Your task to perform on an android device: find snoozed emails in the gmail app Image 0: 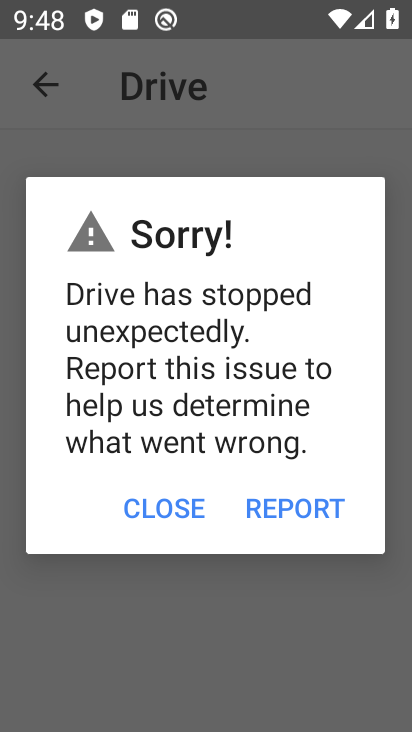
Step 0: press home button
Your task to perform on an android device: find snoozed emails in the gmail app Image 1: 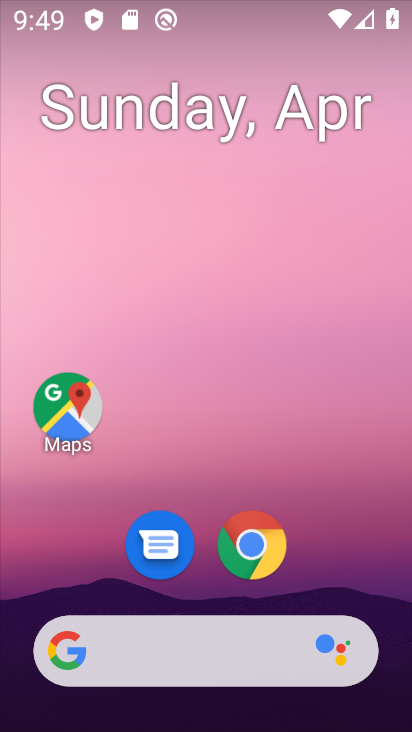
Step 1: drag from (339, 596) to (336, 291)
Your task to perform on an android device: find snoozed emails in the gmail app Image 2: 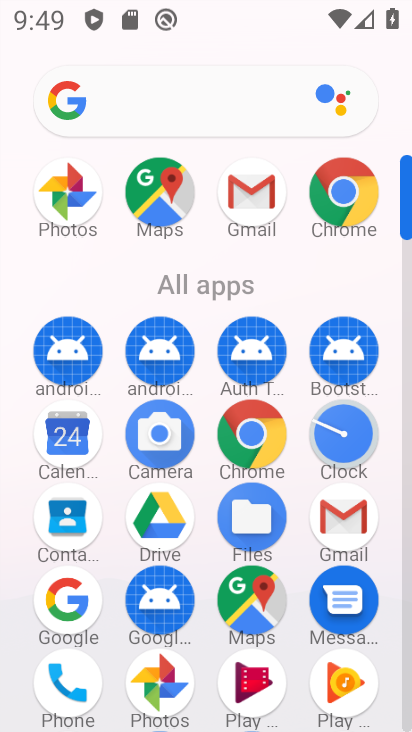
Step 2: click (262, 220)
Your task to perform on an android device: find snoozed emails in the gmail app Image 3: 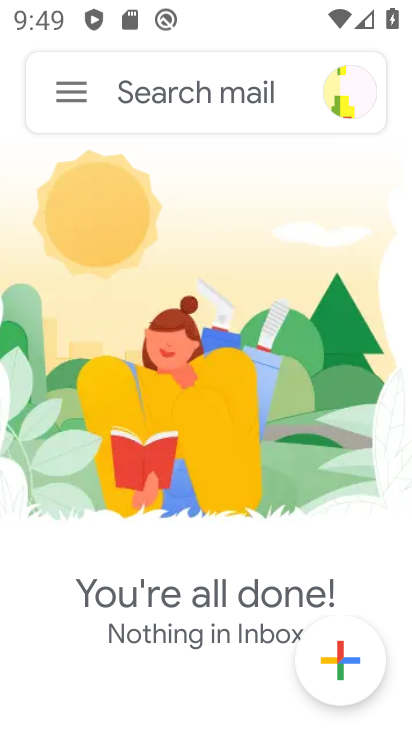
Step 3: click (73, 104)
Your task to perform on an android device: find snoozed emails in the gmail app Image 4: 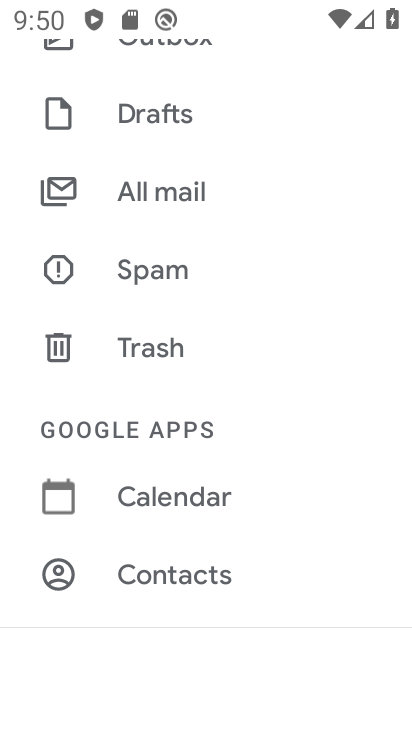
Step 4: drag from (331, 562) to (315, 233)
Your task to perform on an android device: find snoozed emails in the gmail app Image 5: 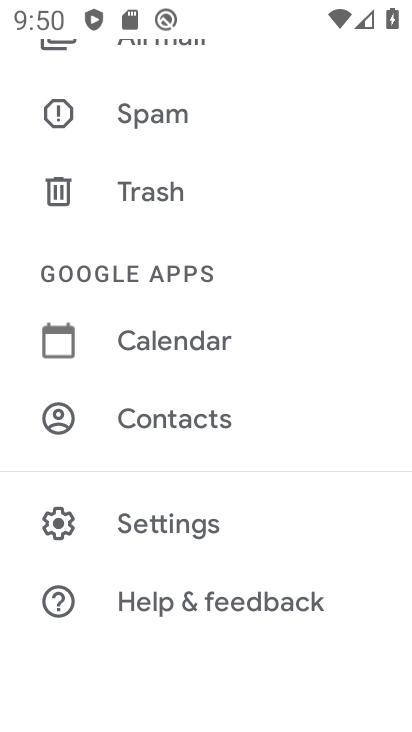
Step 5: drag from (299, 184) to (307, 727)
Your task to perform on an android device: find snoozed emails in the gmail app Image 6: 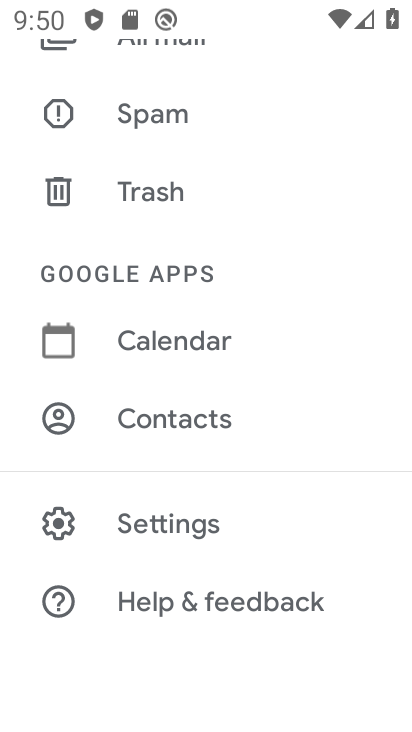
Step 6: drag from (233, 84) to (340, 696)
Your task to perform on an android device: find snoozed emails in the gmail app Image 7: 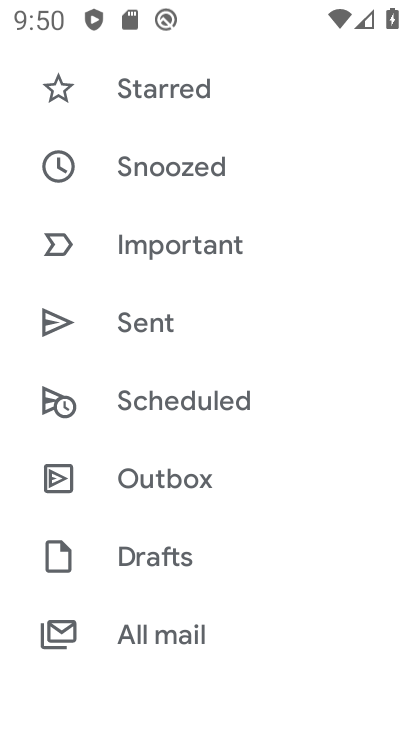
Step 7: click (205, 179)
Your task to perform on an android device: find snoozed emails in the gmail app Image 8: 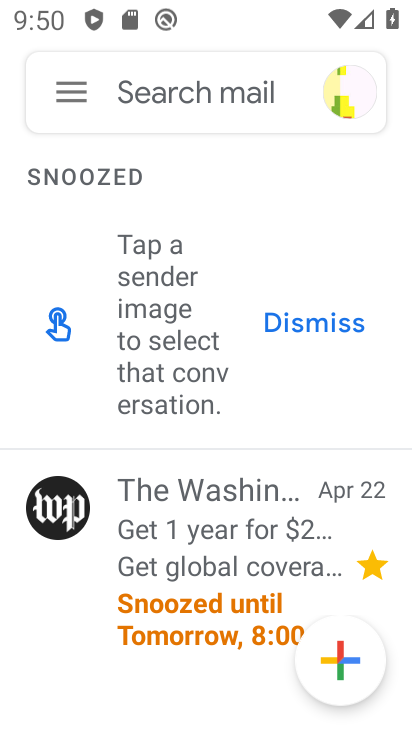
Step 8: click (314, 323)
Your task to perform on an android device: find snoozed emails in the gmail app Image 9: 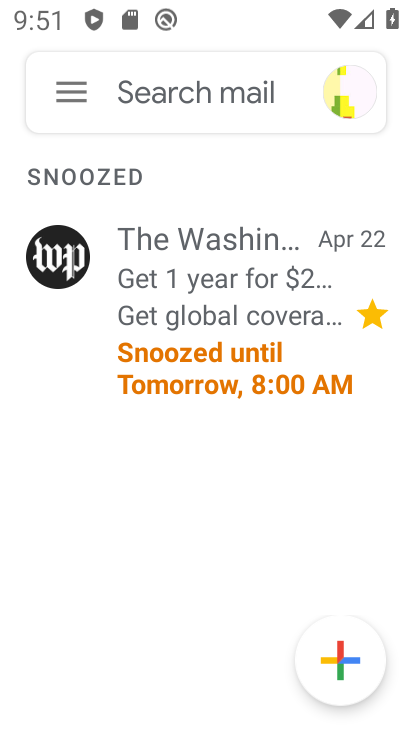
Step 9: task complete